Your task to perform on an android device: check storage Image 0: 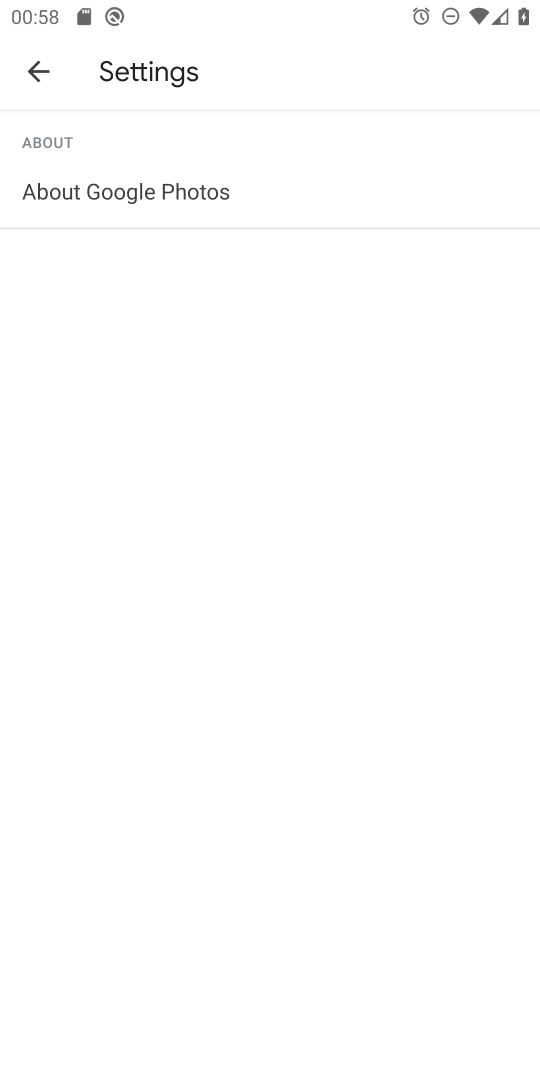
Step 0: press home button
Your task to perform on an android device: check storage Image 1: 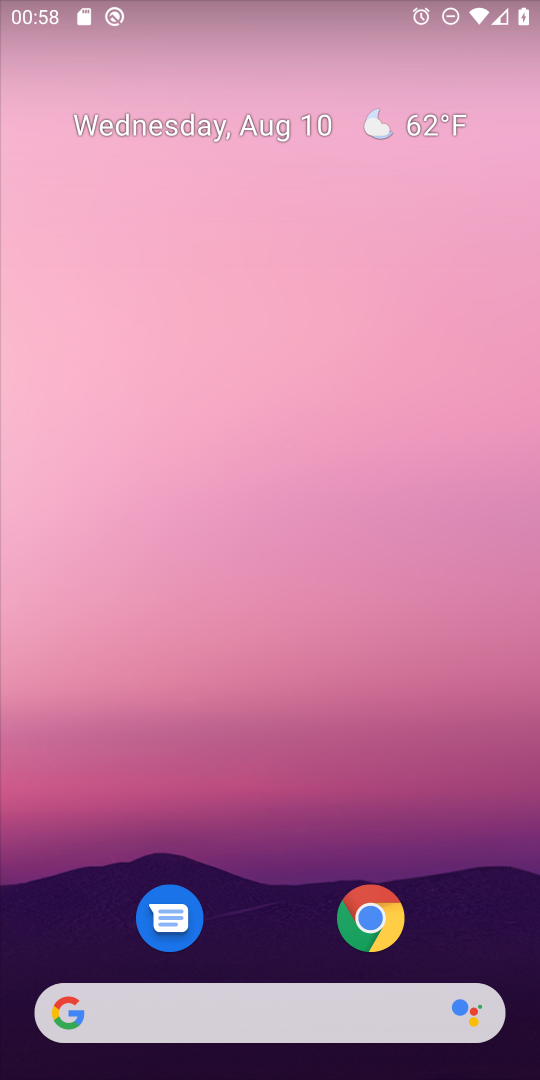
Step 1: drag from (239, 860) to (236, 194)
Your task to perform on an android device: check storage Image 2: 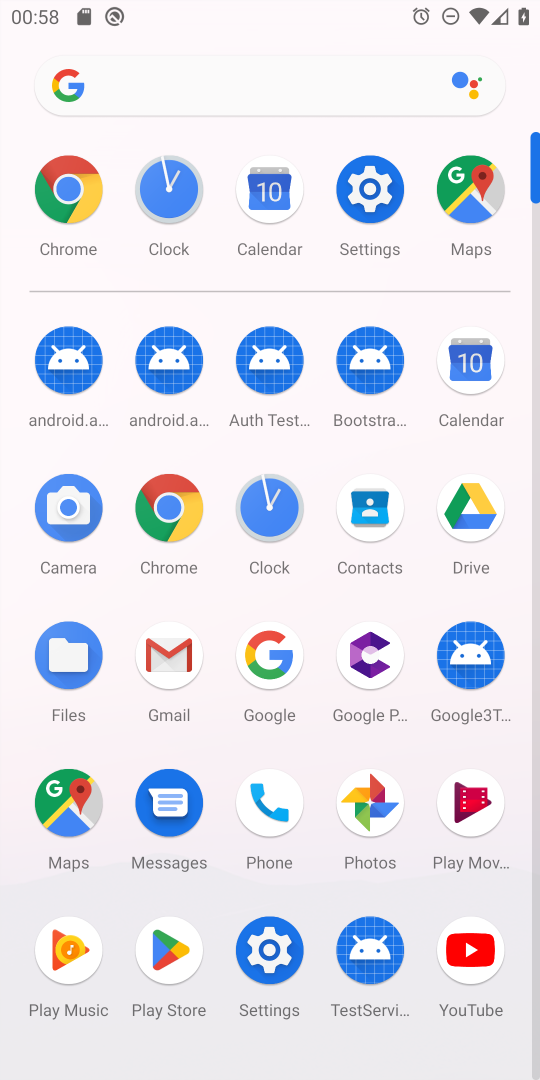
Step 2: click (263, 949)
Your task to perform on an android device: check storage Image 3: 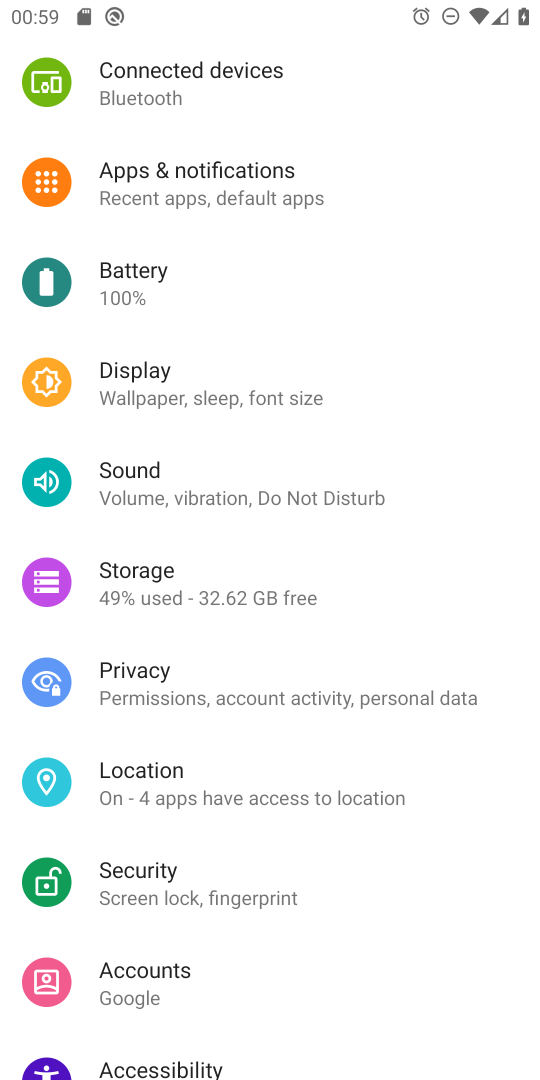
Step 3: click (174, 568)
Your task to perform on an android device: check storage Image 4: 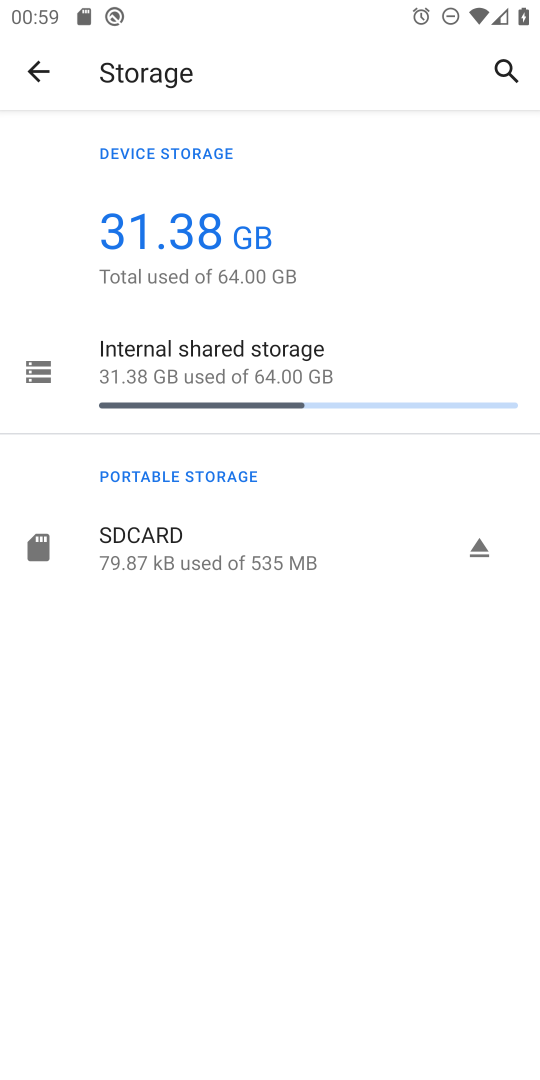
Step 4: task complete